Your task to perform on an android device: Open the Play Movies app and select the watchlist tab. Image 0: 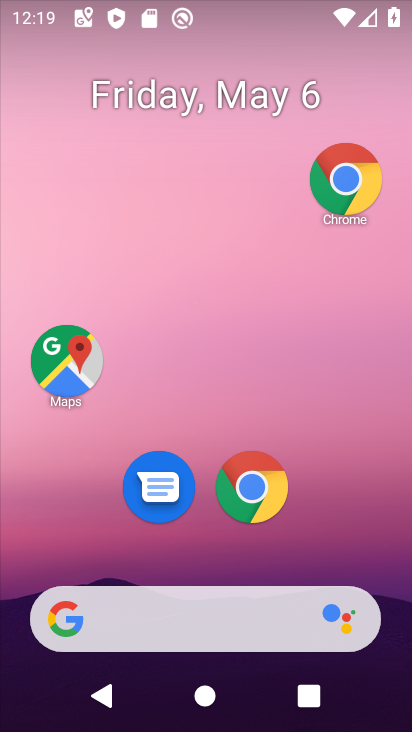
Step 0: drag from (359, 533) to (275, 144)
Your task to perform on an android device: Open the Play Movies app and select the watchlist tab. Image 1: 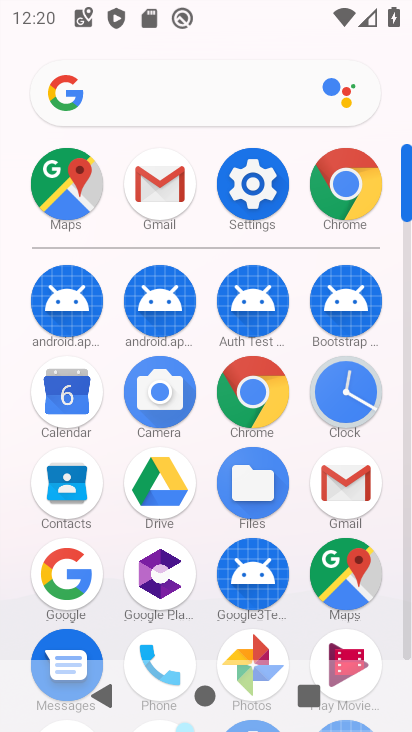
Step 1: click (344, 649)
Your task to perform on an android device: Open the Play Movies app and select the watchlist tab. Image 2: 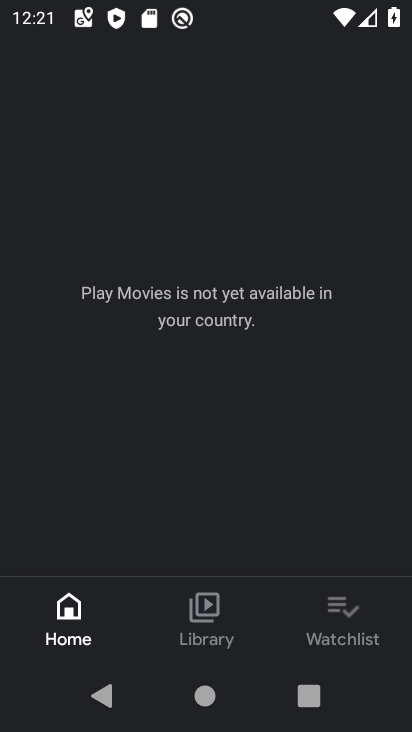
Step 2: click (357, 618)
Your task to perform on an android device: Open the Play Movies app and select the watchlist tab. Image 3: 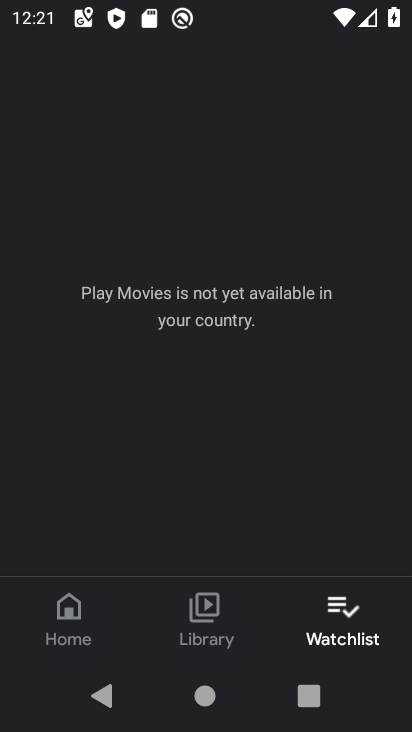
Step 3: task complete